Your task to perform on an android device: check out phone information Image 0: 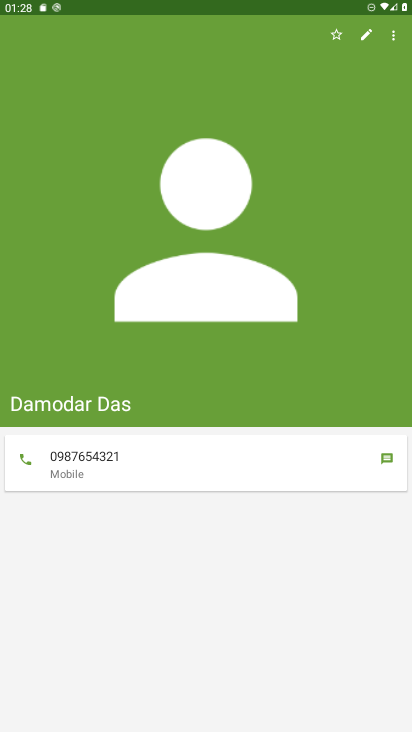
Step 0: press home button
Your task to perform on an android device: check out phone information Image 1: 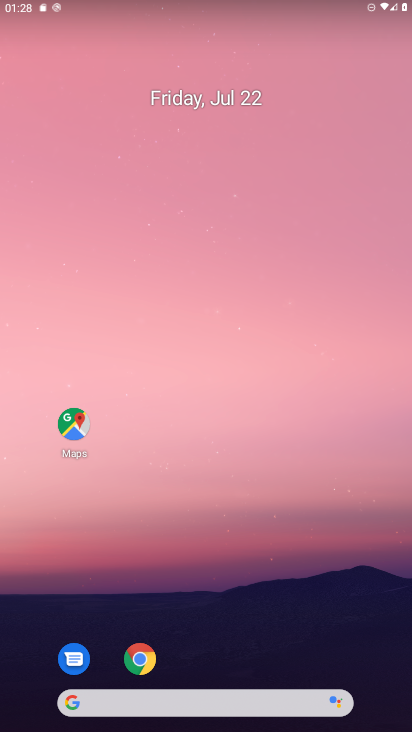
Step 1: drag from (183, 704) to (141, 149)
Your task to perform on an android device: check out phone information Image 2: 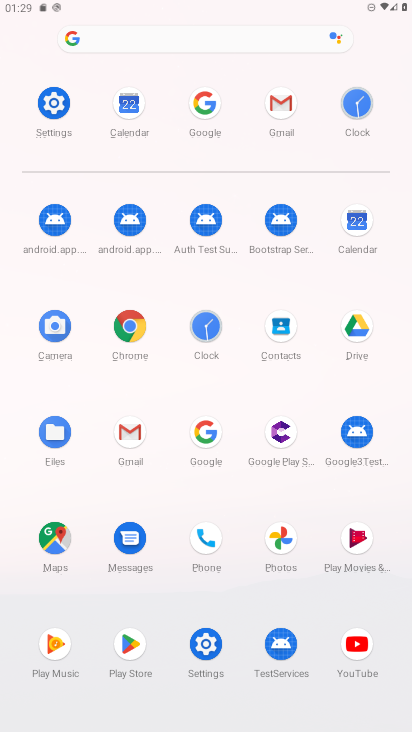
Step 2: click (56, 104)
Your task to perform on an android device: check out phone information Image 3: 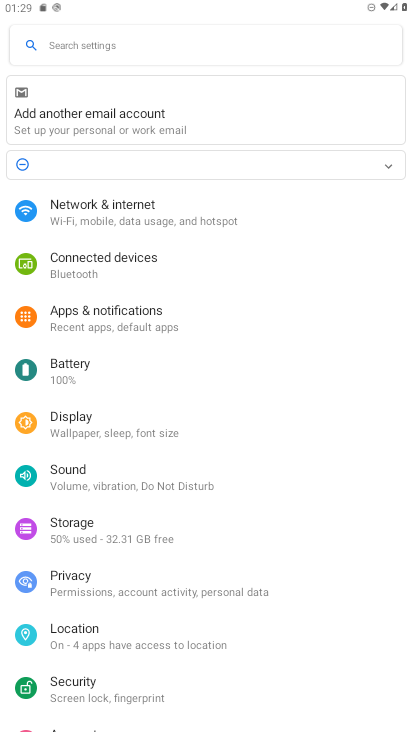
Step 3: drag from (110, 394) to (131, 325)
Your task to perform on an android device: check out phone information Image 4: 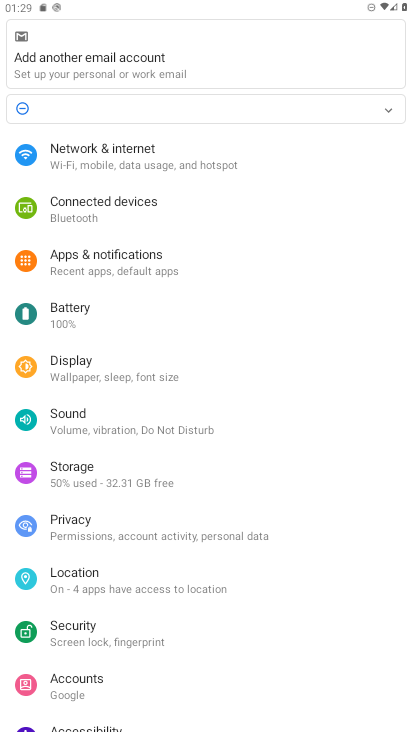
Step 4: drag from (123, 501) to (158, 420)
Your task to perform on an android device: check out phone information Image 5: 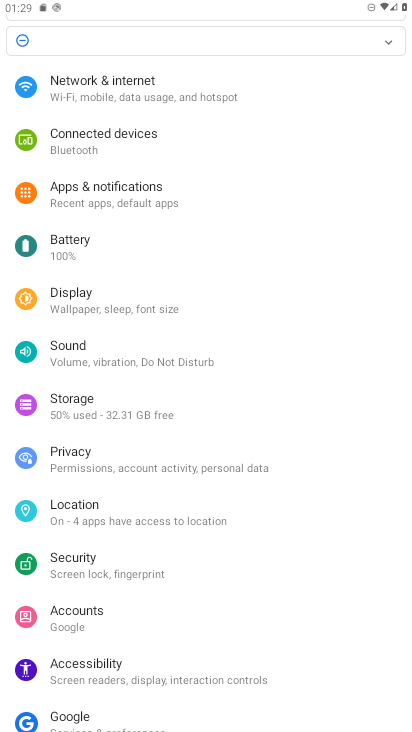
Step 5: drag from (119, 554) to (151, 462)
Your task to perform on an android device: check out phone information Image 6: 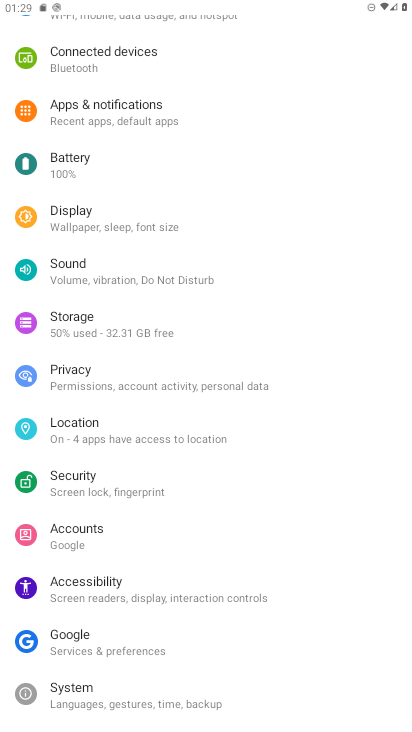
Step 6: drag from (140, 572) to (179, 469)
Your task to perform on an android device: check out phone information Image 7: 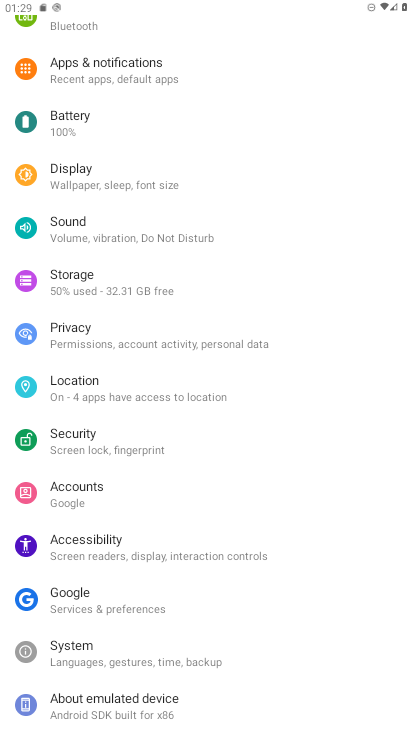
Step 7: drag from (128, 647) to (173, 537)
Your task to perform on an android device: check out phone information Image 8: 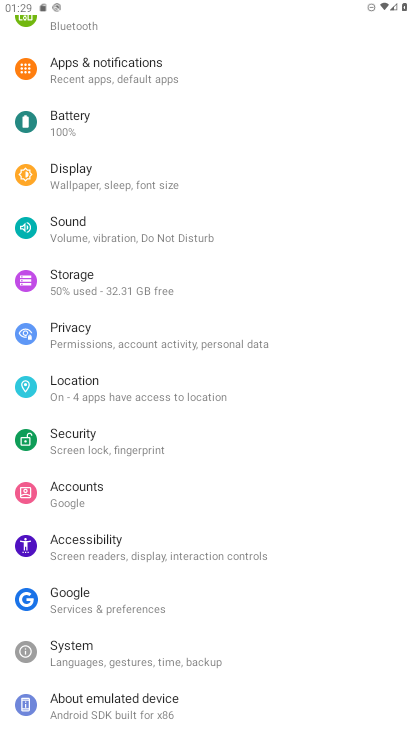
Step 8: click (125, 704)
Your task to perform on an android device: check out phone information Image 9: 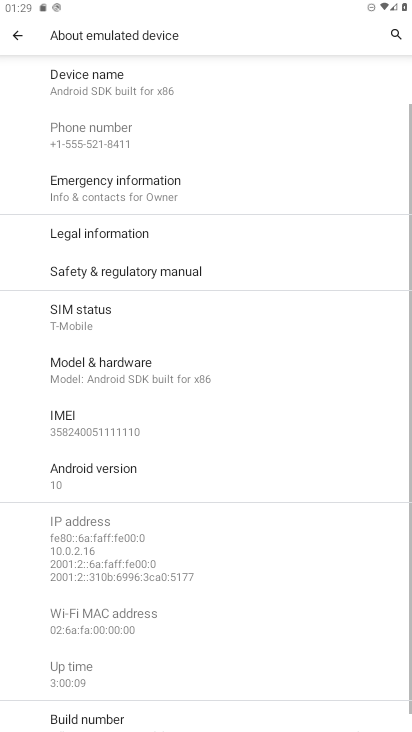
Step 9: task complete